Your task to perform on an android device: allow notifications from all sites in the chrome app Image 0: 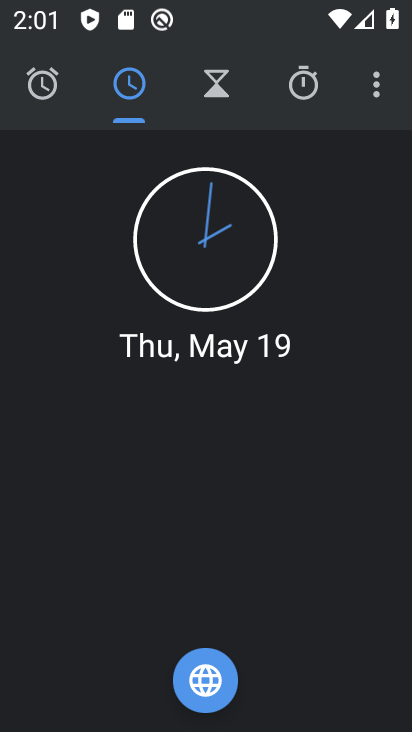
Step 0: press home button
Your task to perform on an android device: allow notifications from all sites in the chrome app Image 1: 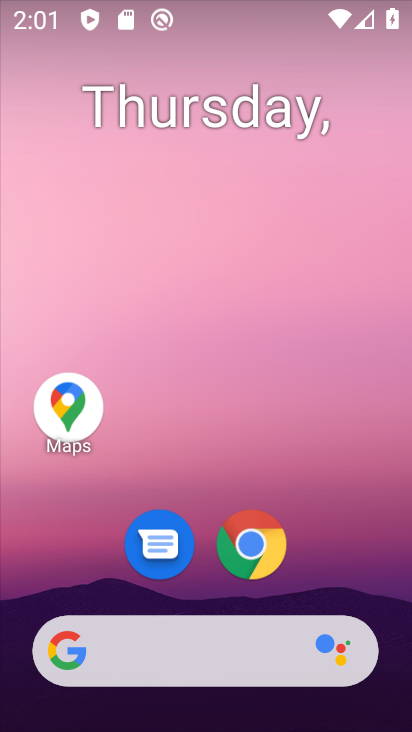
Step 1: drag from (311, 522) to (182, 143)
Your task to perform on an android device: allow notifications from all sites in the chrome app Image 2: 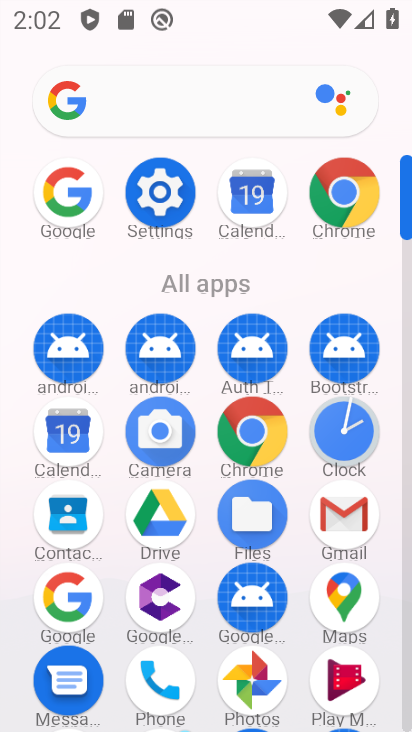
Step 2: click (258, 435)
Your task to perform on an android device: allow notifications from all sites in the chrome app Image 3: 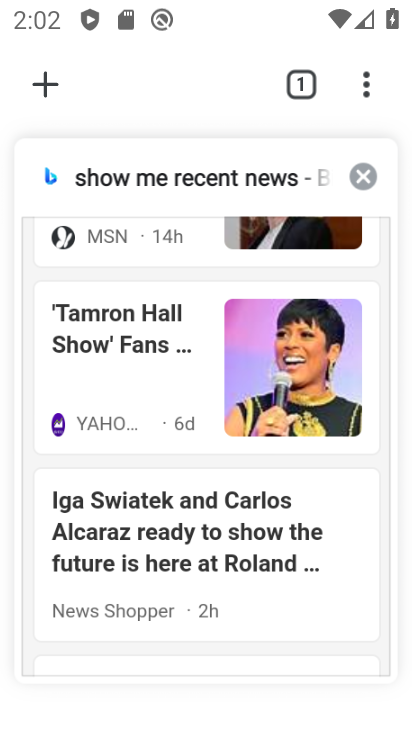
Step 3: click (364, 89)
Your task to perform on an android device: allow notifications from all sites in the chrome app Image 4: 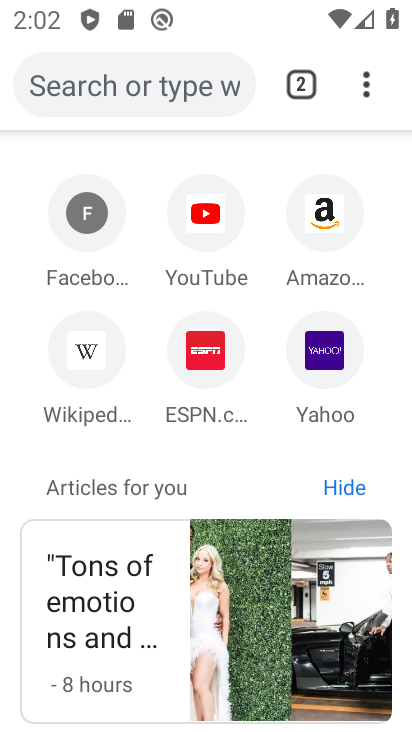
Step 4: click (372, 91)
Your task to perform on an android device: allow notifications from all sites in the chrome app Image 5: 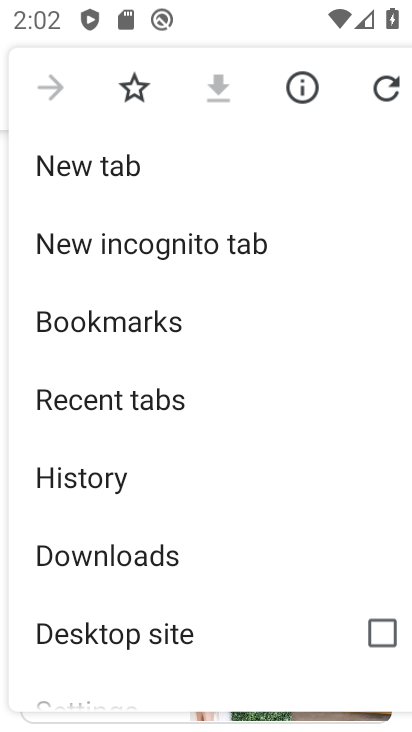
Step 5: click (86, 699)
Your task to perform on an android device: allow notifications from all sites in the chrome app Image 6: 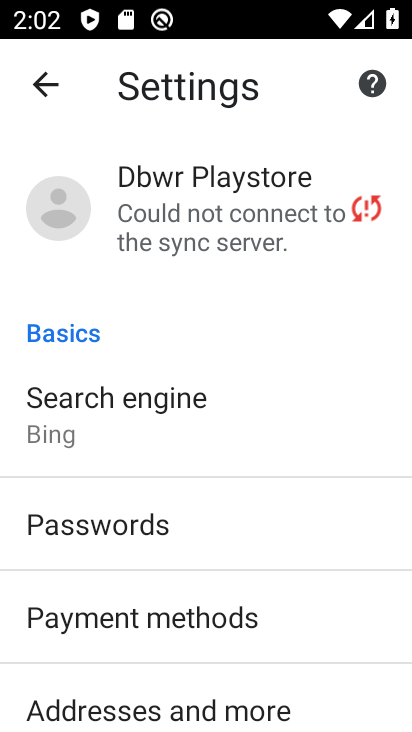
Step 6: drag from (155, 656) to (177, 215)
Your task to perform on an android device: allow notifications from all sites in the chrome app Image 7: 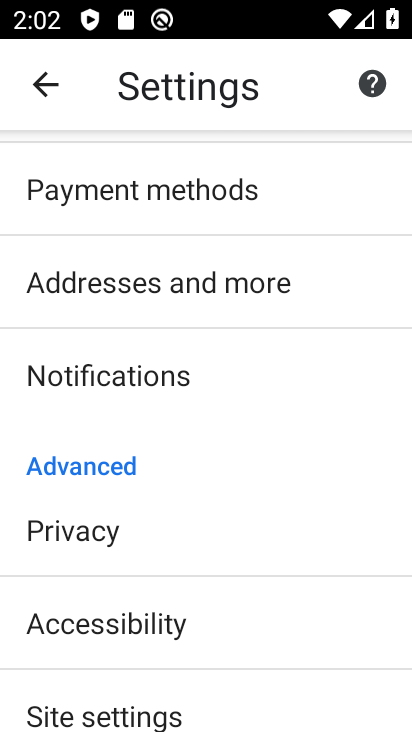
Step 7: click (157, 373)
Your task to perform on an android device: allow notifications from all sites in the chrome app Image 8: 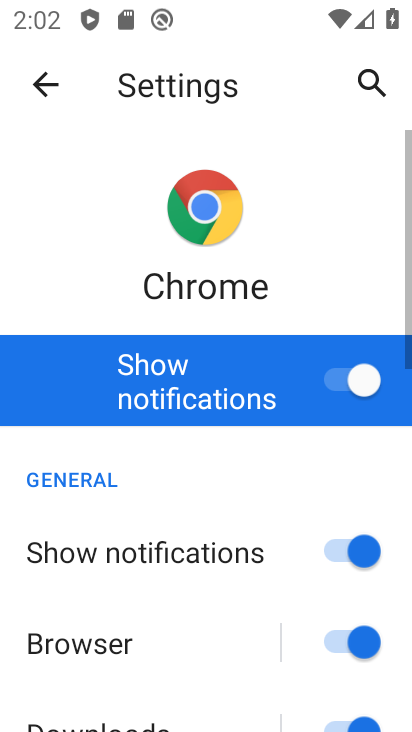
Step 8: task complete